Your task to perform on an android device: turn notification dots on Image 0: 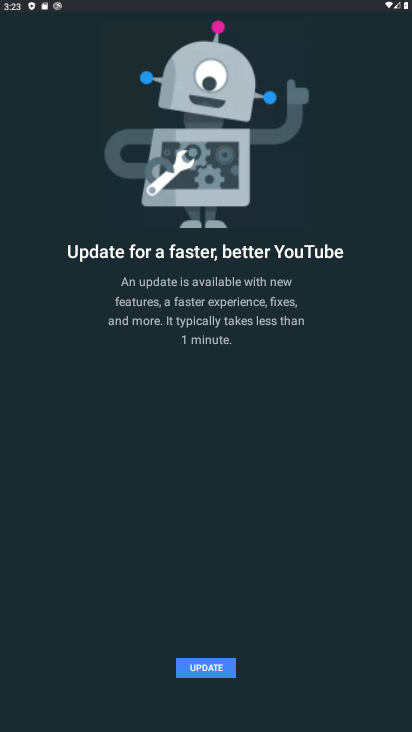
Step 0: press home button
Your task to perform on an android device: turn notification dots on Image 1: 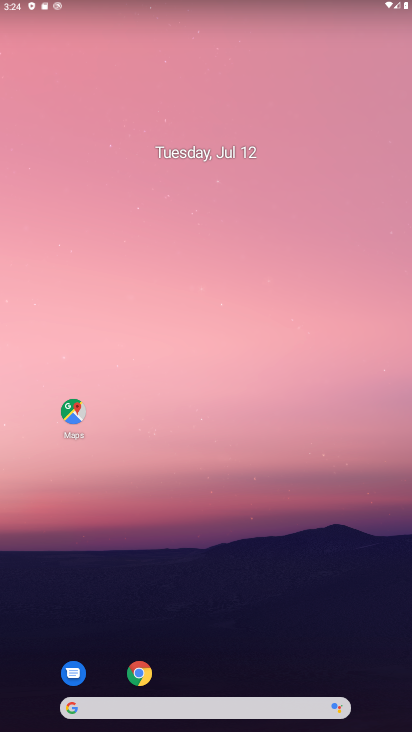
Step 1: drag from (226, 704) to (340, 72)
Your task to perform on an android device: turn notification dots on Image 2: 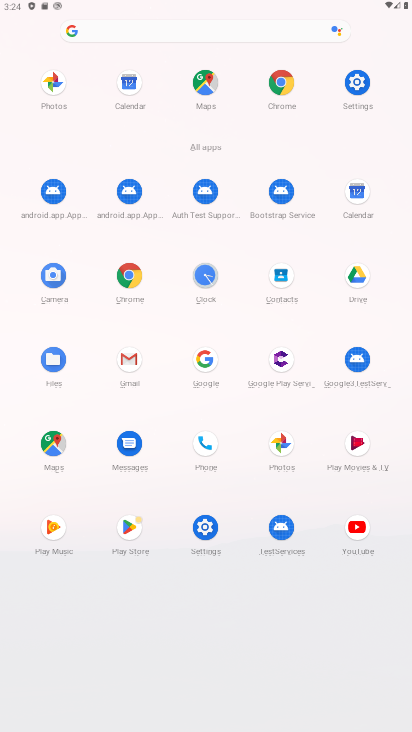
Step 2: click (355, 83)
Your task to perform on an android device: turn notification dots on Image 3: 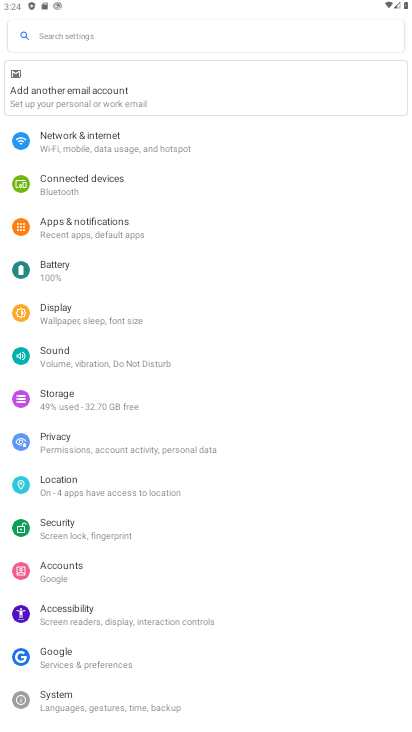
Step 3: click (88, 227)
Your task to perform on an android device: turn notification dots on Image 4: 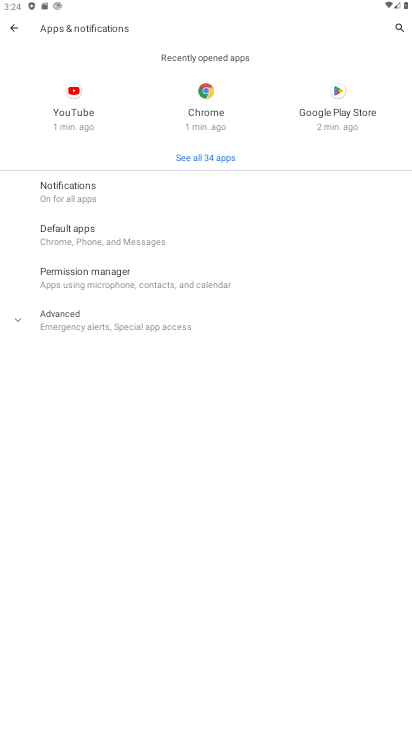
Step 4: click (70, 193)
Your task to perform on an android device: turn notification dots on Image 5: 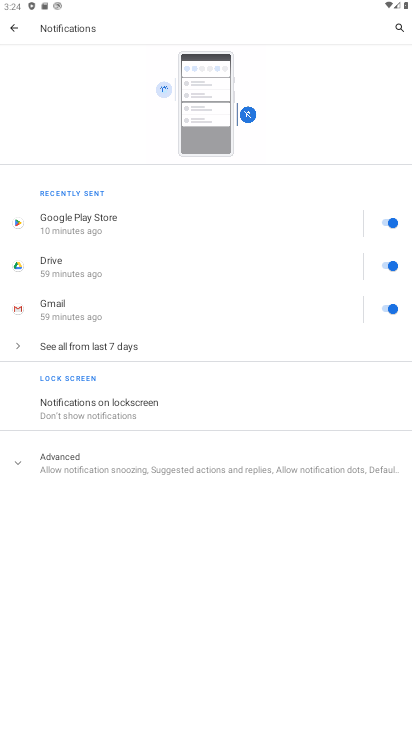
Step 5: click (79, 470)
Your task to perform on an android device: turn notification dots on Image 6: 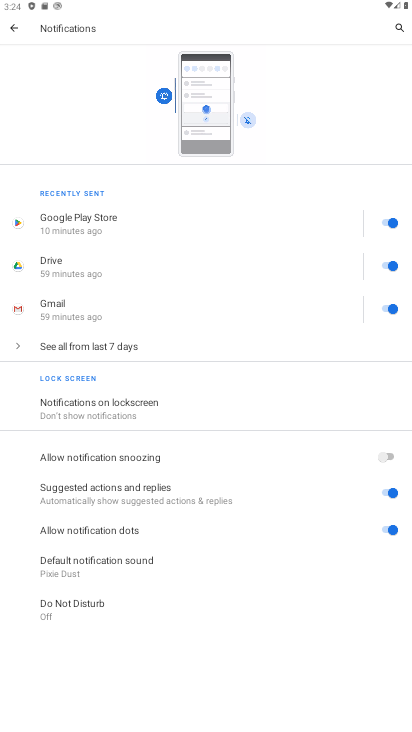
Step 6: task complete